Your task to perform on an android device: turn smart compose on in the gmail app Image 0: 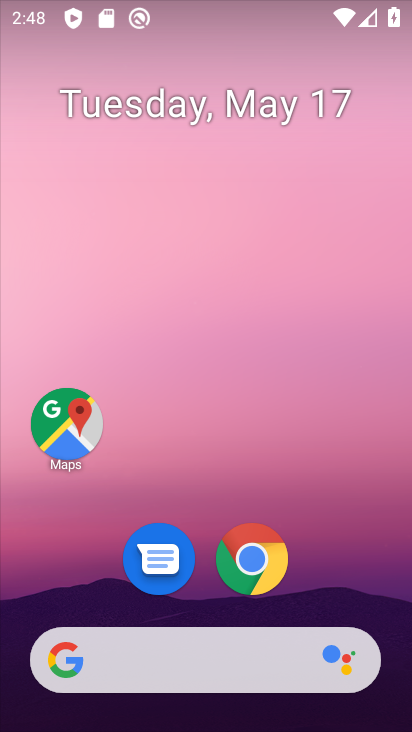
Step 0: drag from (355, 603) to (299, 179)
Your task to perform on an android device: turn smart compose on in the gmail app Image 1: 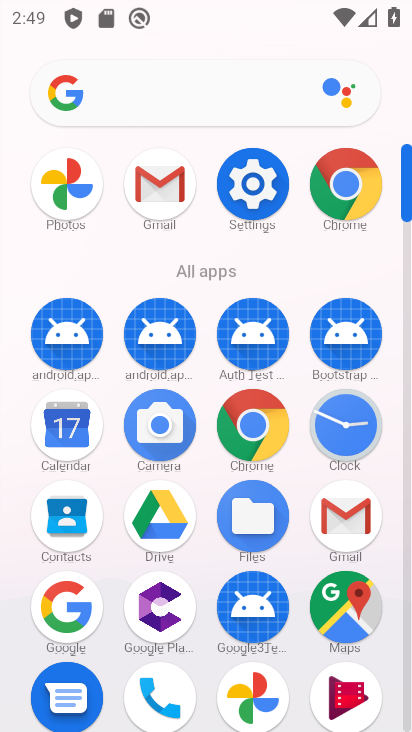
Step 1: click (169, 206)
Your task to perform on an android device: turn smart compose on in the gmail app Image 2: 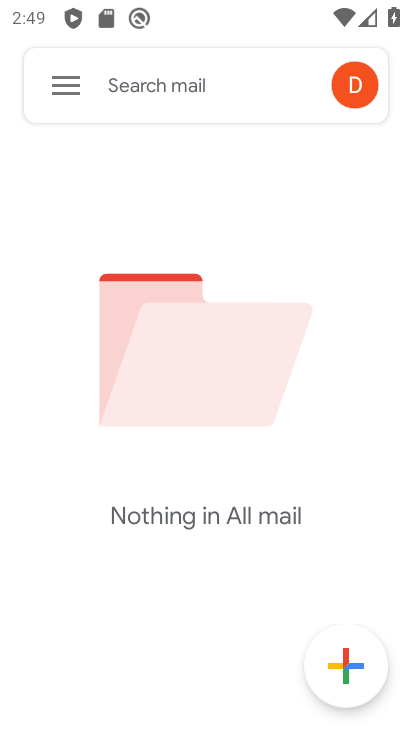
Step 2: click (65, 93)
Your task to perform on an android device: turn smart compose on in the gmail app Image 3: 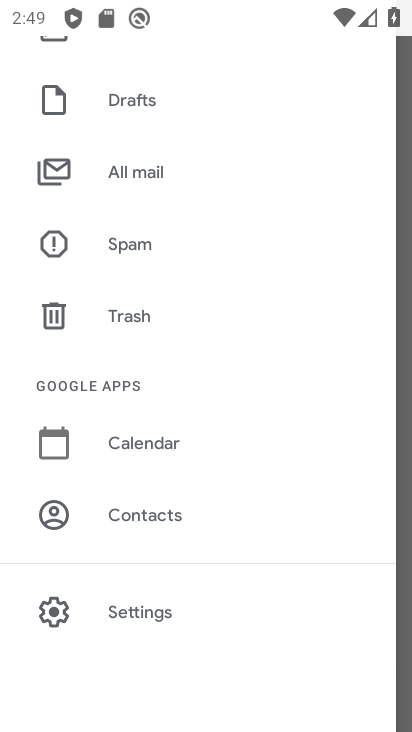
Step 3: click (239, 615)
Your task to perform on an android device: turn smart compose on in the gmail app Image 4: 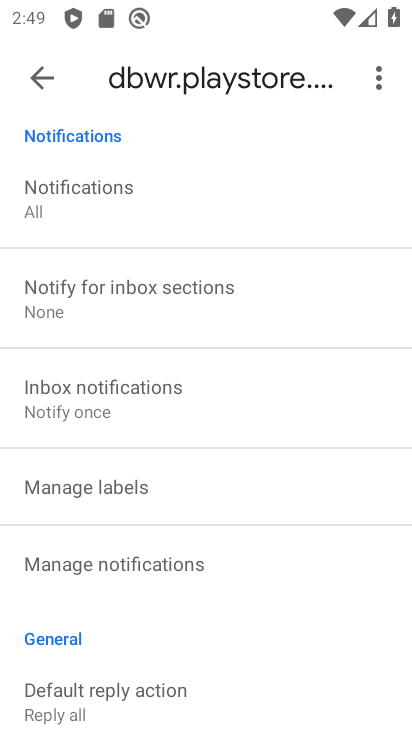
Step 4: task complete